Your task to perform on an android device: turn off wifi Image 0: 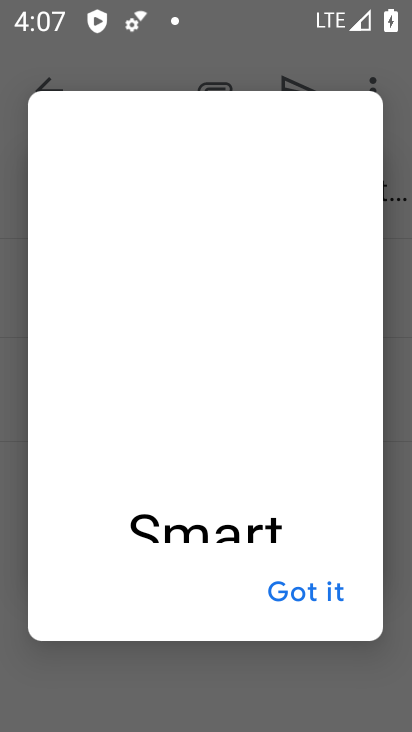
Step 0: press home button
Your task to perform on an android device: turn off wifi Image 1: 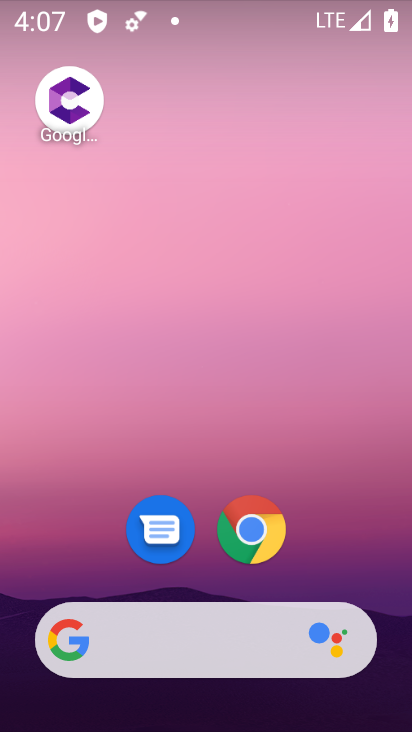
Step 1: drag from (314, 555) to (350, 9)
Your task to perform on an android device: turn off wifi Image 2: 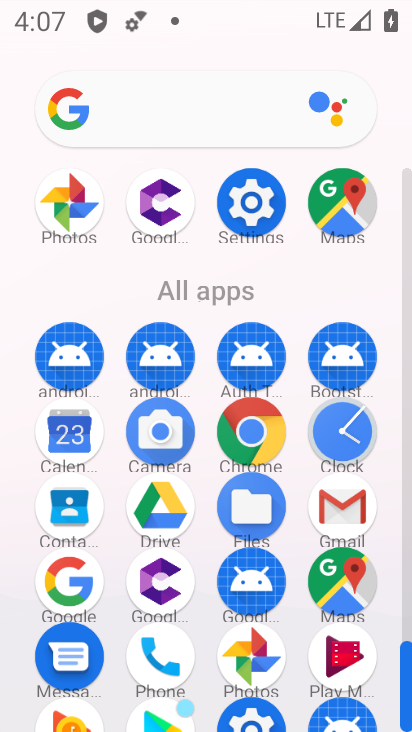
Step 2: click (239, 211)
Your task to perform on an android device: turn off wifi Image 3: 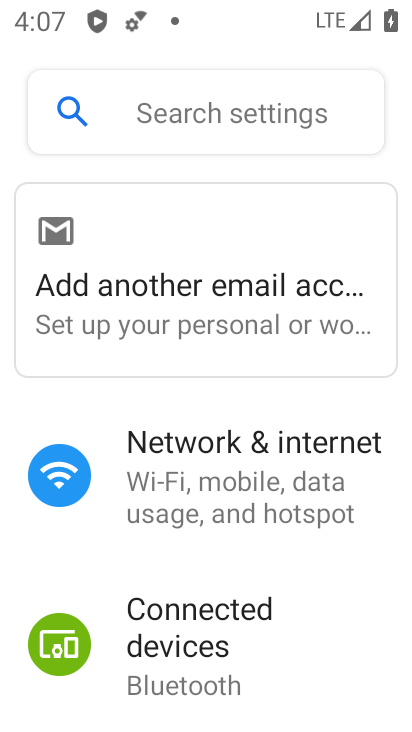
Step 3: click (240, 472)
Your task to perform on an android device: turn off wifi Image 4: 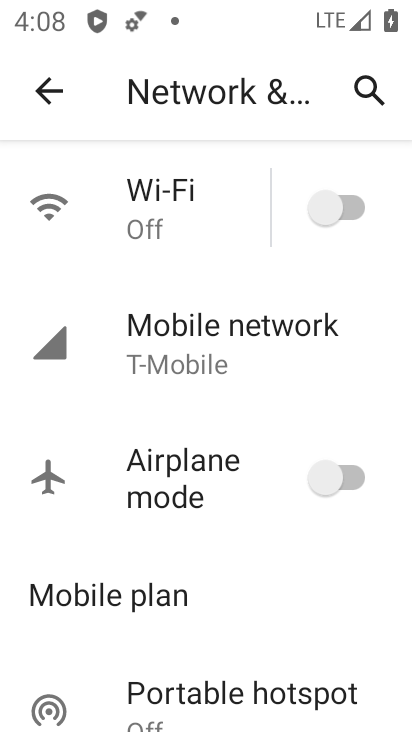
Step 4: task complete